Your task to perform on an android device: Open the Play Movies app and select the watchlist tab. Image 0: 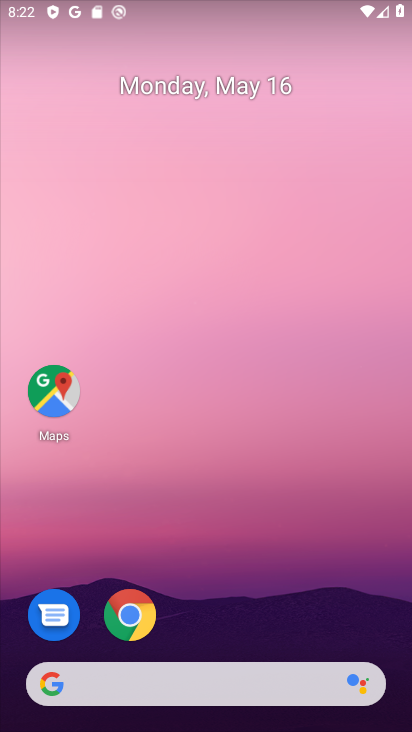
Step 0: press home button
Your task to perform on an android device: Open the Play Movies app and select the watchlist tab. Image 1: 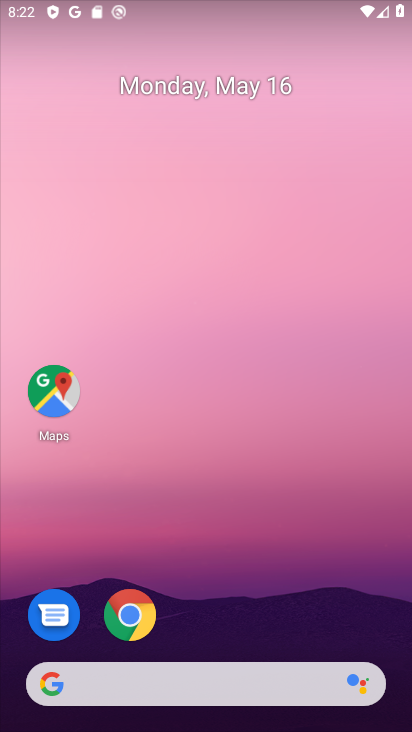
Step 1: drag from (64, 532) to (271, 179)
Your task to perform on an android device: Open the Play Movies app and select the watchlist tab. Image 2: 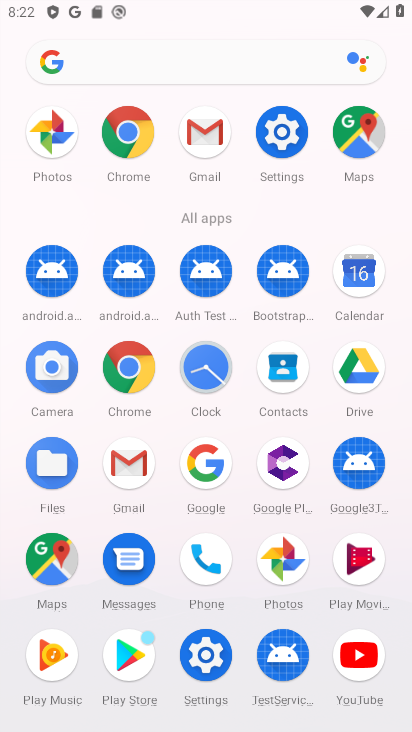
Step 2: click (371, 566)
Your task to perform on an android device: Open the Play Movies app and select the watchlist tab. Image 3: 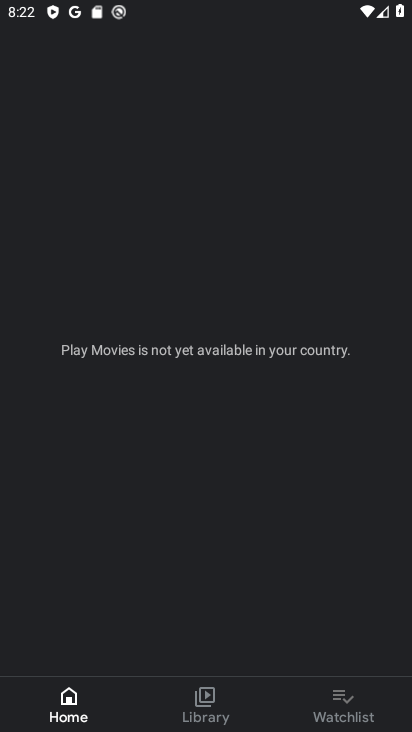
Step 3: click (324, 708)
Your task to perform on an android device: Open the Play Movies app and select the watchlist tab. Image 4: 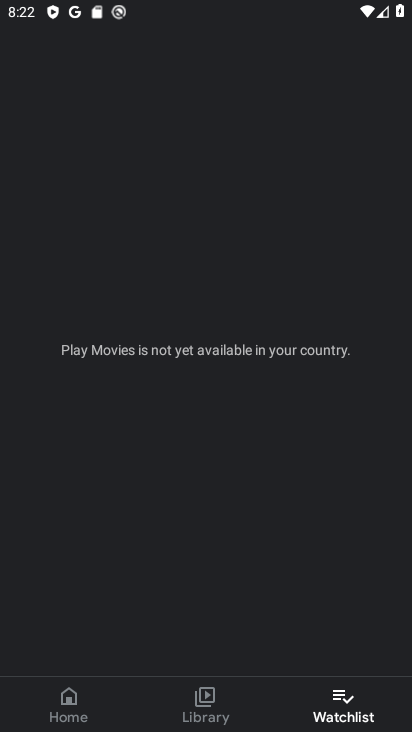
Step 4: task complete